Your task to perform on an android device: Open the Play Movies app and select the watchlist tab. Image 0: 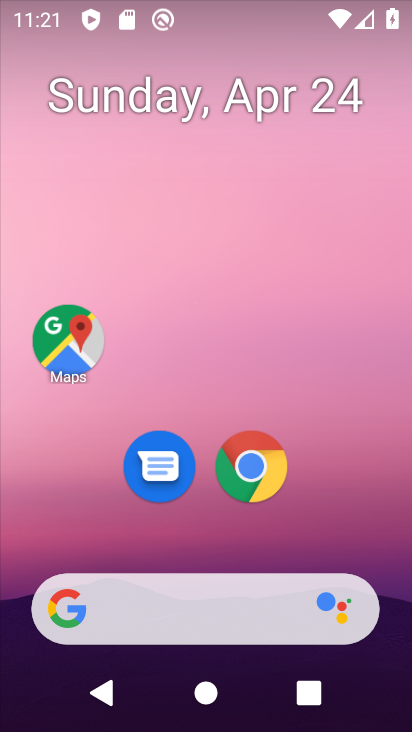
Step 0: drag from (259, 465) to (247, 151)
Your task to perform on an android device: Open the Play Movies app and select the watchlist tab. Image 1: 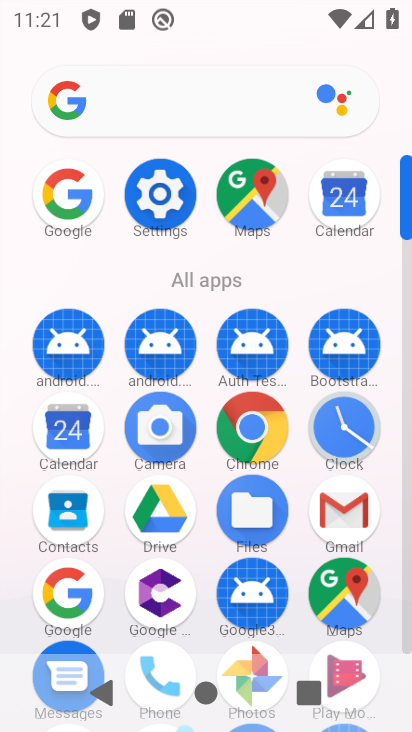
Step 1: drag from (248, 590) to (246, 160)
Your task to perform on an android device: Open the Play Movies app and select the watchlist tab. Image 2: 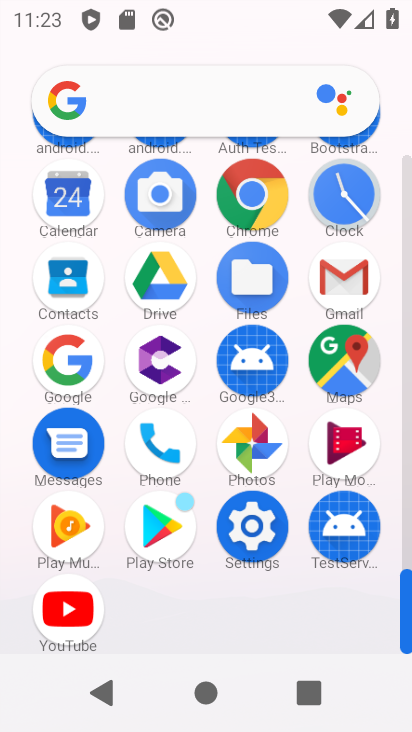
Step 2: click (329, 446)
Your task to perform on an android device: Open the Play Movies app and select the watchlist tab. Image 3: 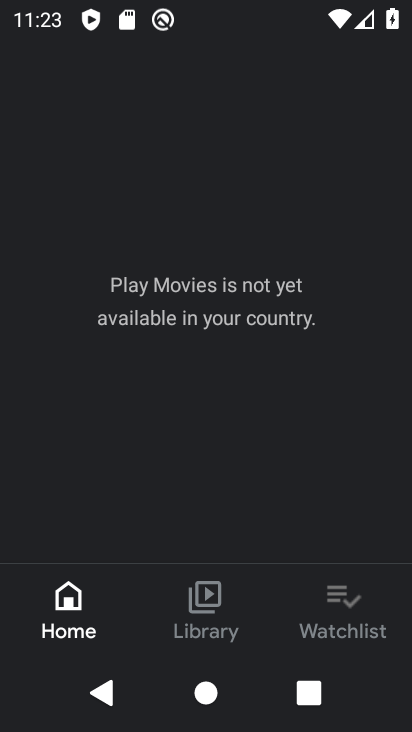
Step 3: click (352, 604)
Your task to perform on an android device: Open the Play Movies app and select the watchlist tab. Image 4: 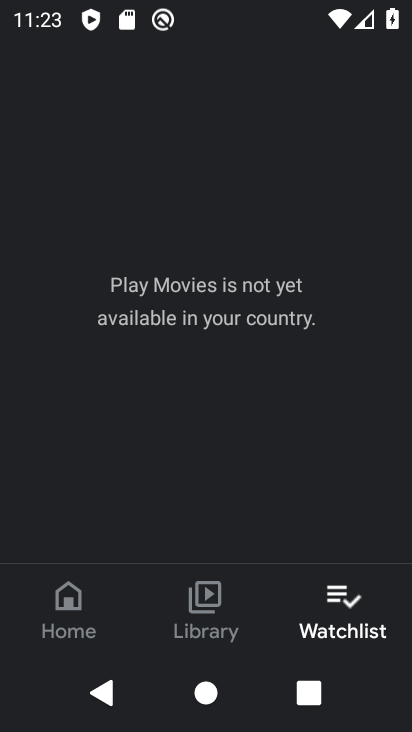
Step 4: task complete